Your task to perform on an android device: Open my contact list Image 0: 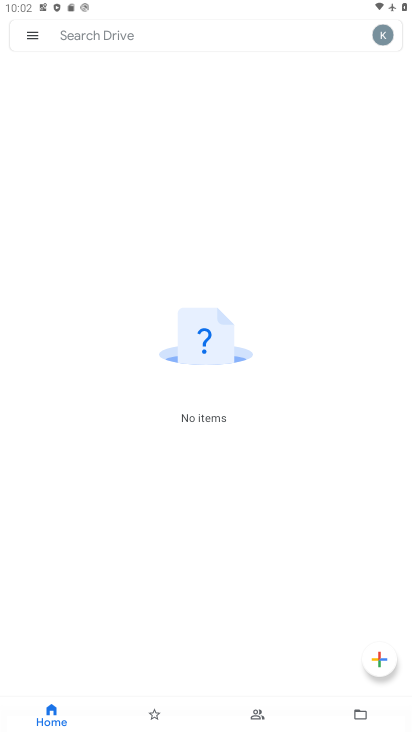
Step 0: press home button
Your task to perform on an android device: Open my contact list Image 1: 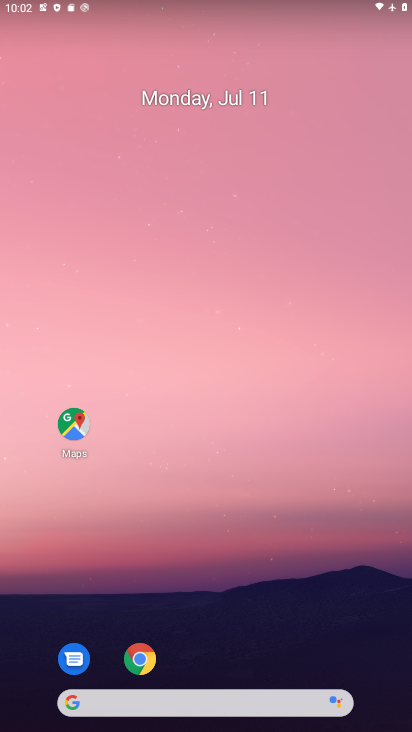
Step 1: drag from (215, 694) to (183, 116)
Your task to perform on an android device: Open my contact list Image 2: 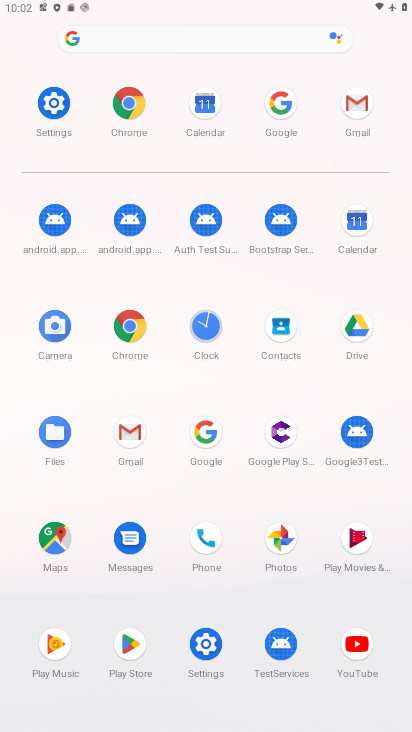
Step 2: click (281, 323)
Your task to perform on an android device: Open my contact list Image 3: 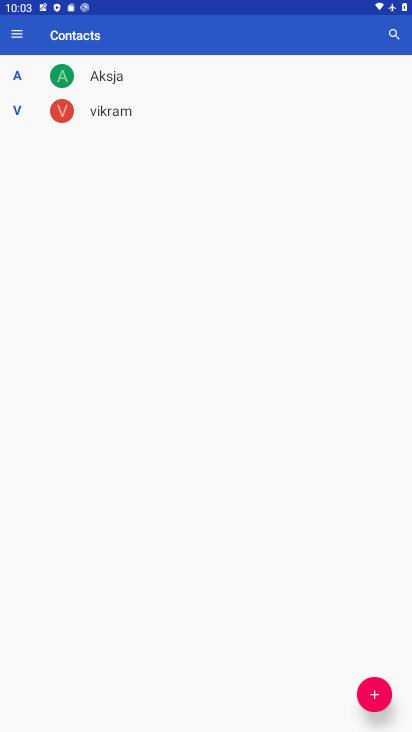
Step 3: task complete